Your task to perform on an android device: find which apps use the phone's location Image 0: 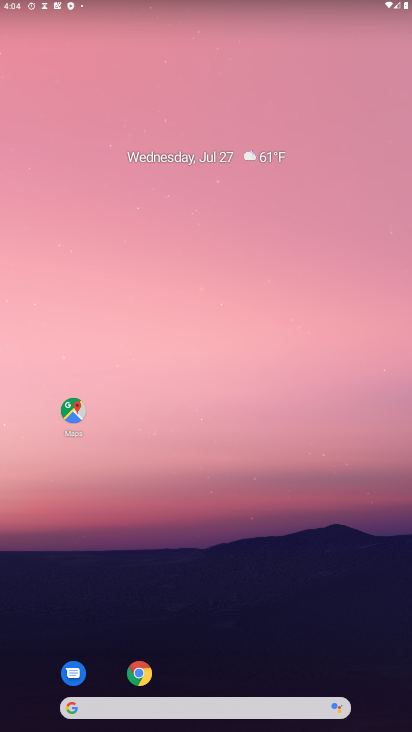
Step 0: drag from (86, 559) to (152, 294)
Your task to perform on an android device: find which apps use the phone's location Image 1: 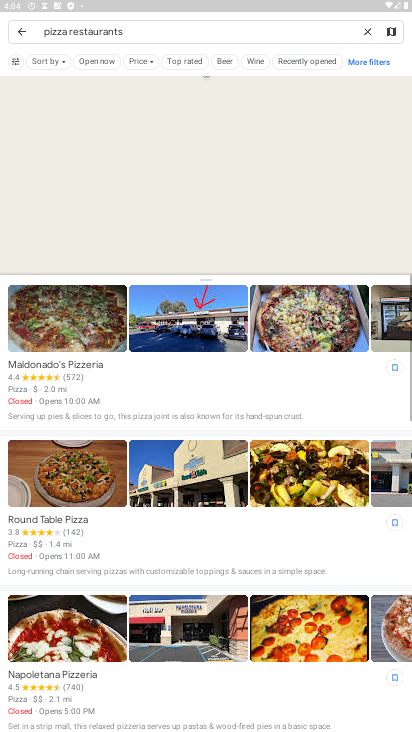
Step 1: press home button
Your task to perform on an android device: find which apps use the phone's location Image 2: 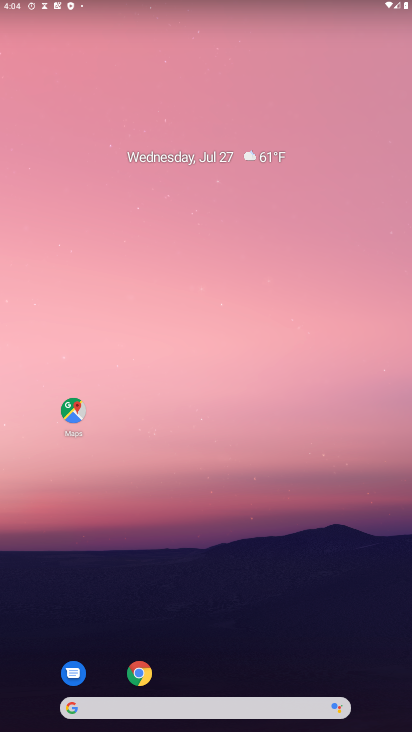
Step 2: drag from (60, 667) to (292, 125)
Your task to perform on an android device: find which apps use the phone's location Image 3: 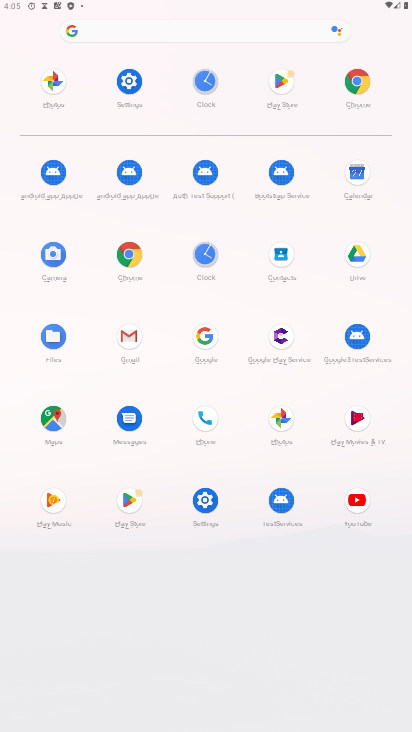
Step 3: click (196, 502)
Your task to perform on an android device: find which apps use the phone's location Image 4: 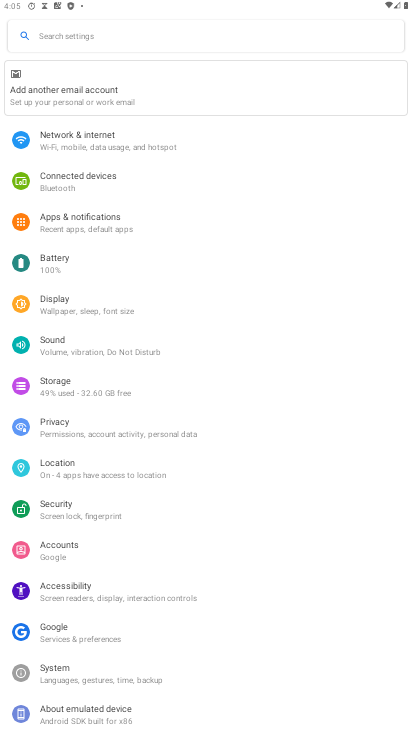
Step 4: click (82, 468)
Your task to perform on an android device: find which apps use the phone's location Image 5: 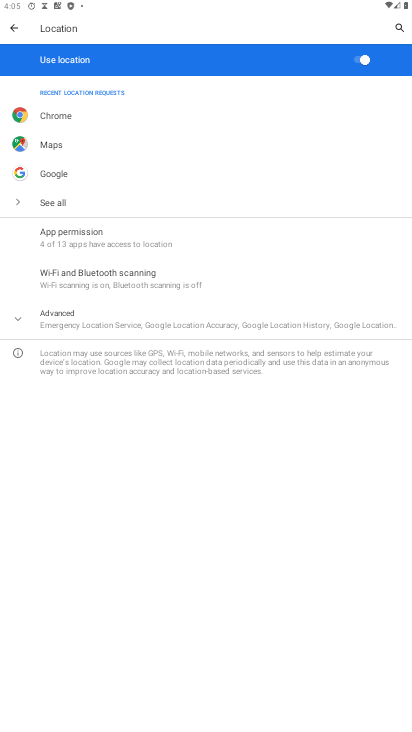
Step 5: click (83, 229)
Your task to perform on an android device: find which apps use the phone's location Image 6: 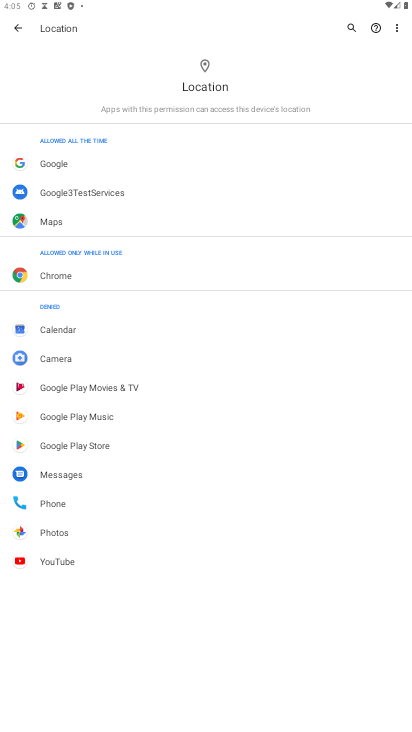
Step 6: task complete